Your task to perform on an android device: turn pop-ups off in chrome Image 0: 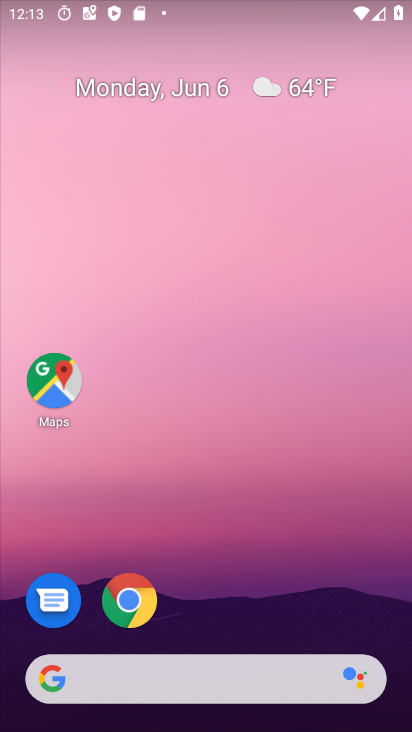
Step 0: drag from (233, 620) to (95, 49)
Your task to perform on an android device: turn pop-ups off in chrome Image 1: 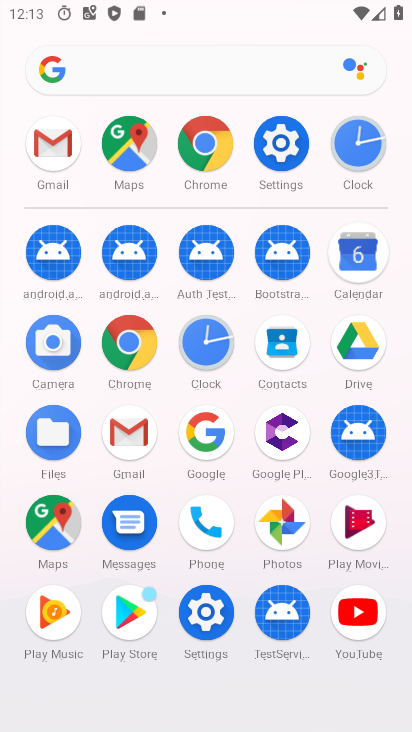
Step 1: click (178, 133)
Your task to perform on an android device: turn pop-ups off in chrome Image 2: 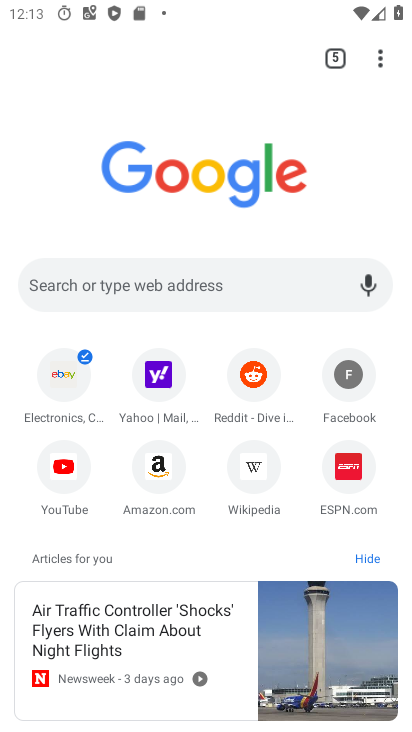
Step 2: drag from (380, 57) to (146, 507)
Your task to perform on an android device: turn pop-ups off in chrome Image 3: 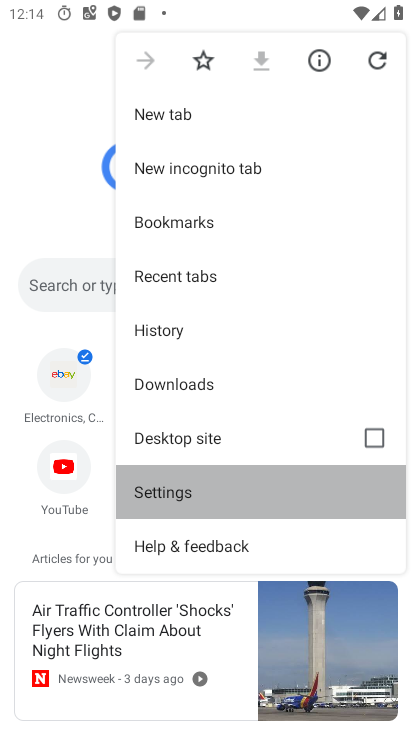
Step 3: click (145, 508)
Your task to perform on an android device: turn pop-ups off in chrome Image 4: 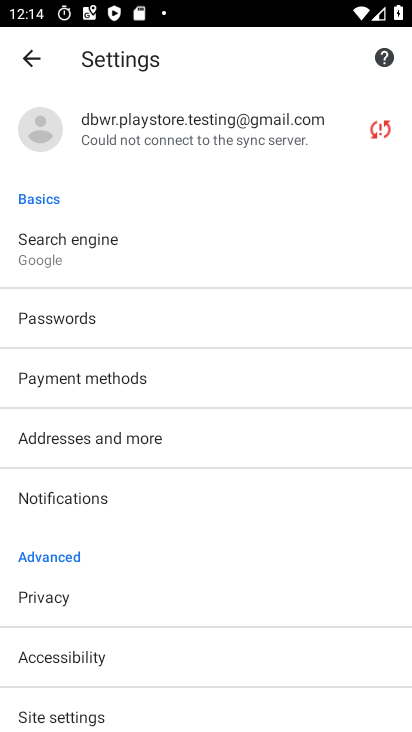
Step 4: drag from (113, 562) to (24, 199)
Your task to perform on an android device: turn pop-ups off in chrome Image 5: 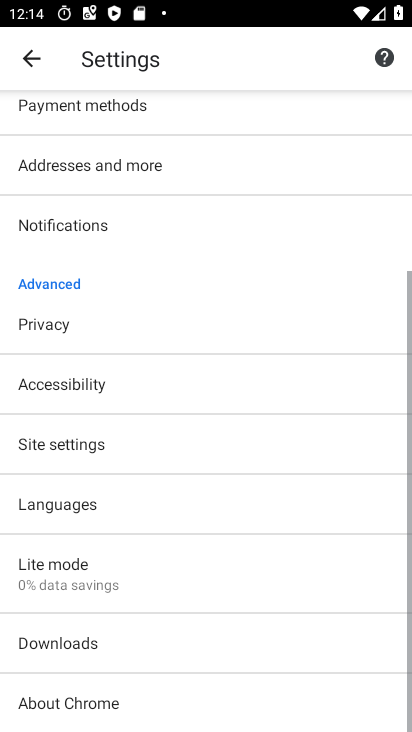
Step 5: drag from (96, 508) to (75, 310)
Your task to perform on an android device: turn pop-ups off in chrome Image 6: 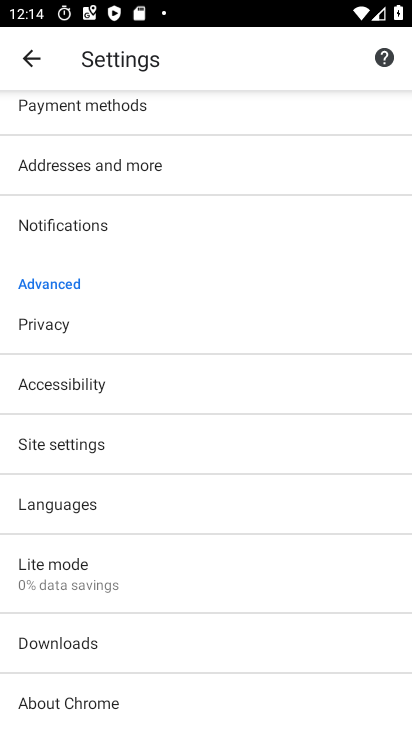
Step 6: click (39, 439)
Your task to perform on an android device: turn pop-ups off in chrome Image 7: 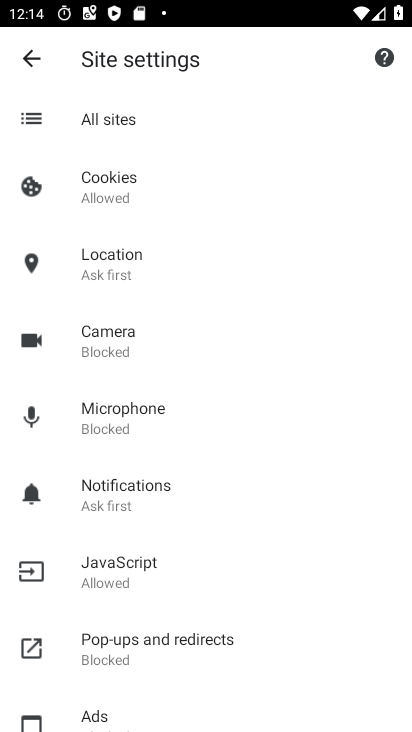
Step 7: click (109, 637)
Your task to perform on an android device: turn pop-ups off in chrome Image 8: 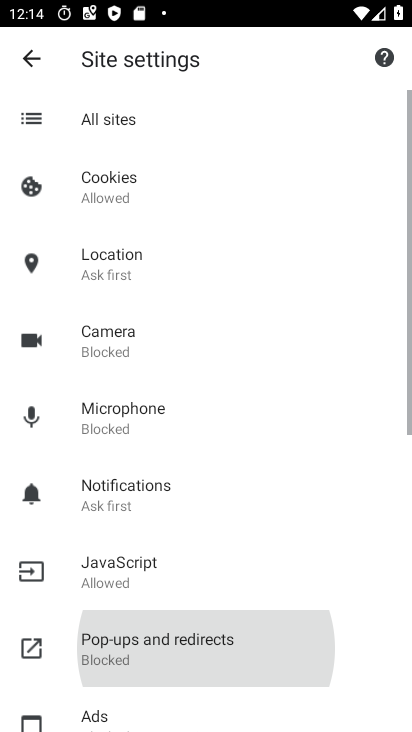
Step 8: click (109, 637)
Your task to perform on an android device: turn pop-ups off in chrome Image 9: 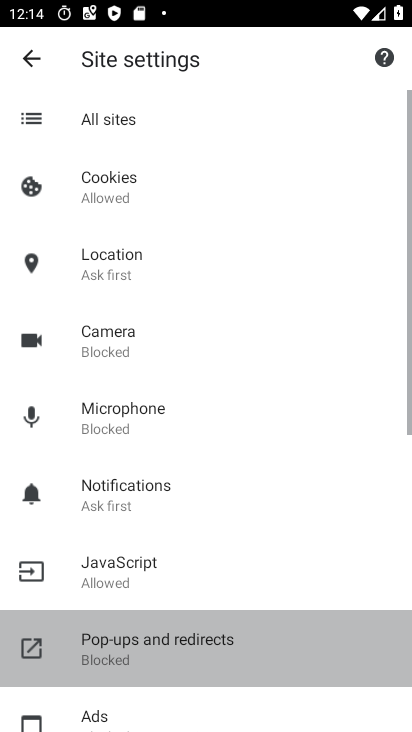
Step 9: click (109, 637)
Your task to perform on an android device: turn pop-ups off in chrome Image 10: 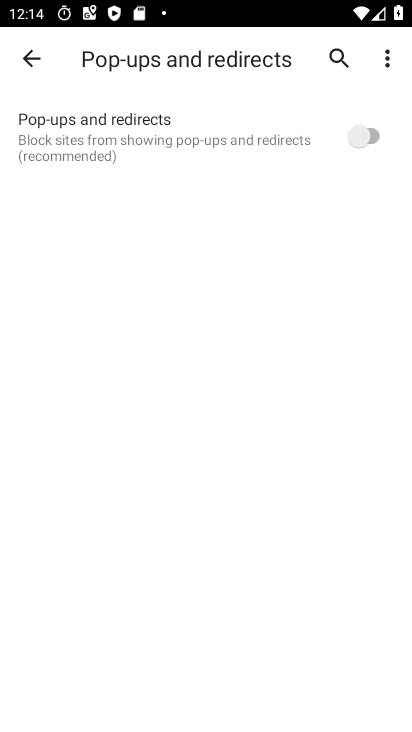
Step 10: task complete